Your task to perform on an android device: Search for seafood restaurants on Google Maps Image 0: 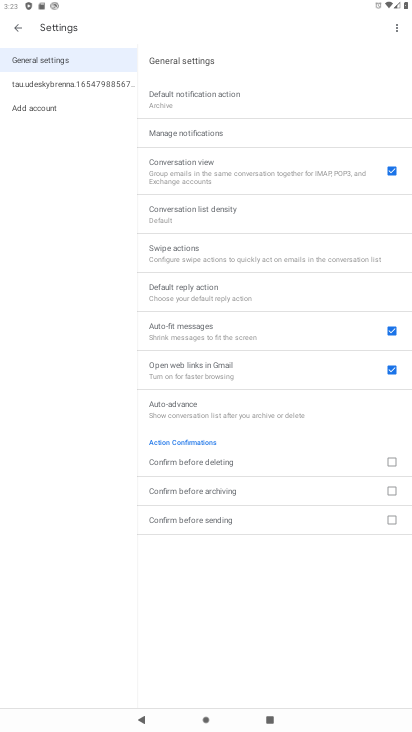
Step 0: press home button
Your task to perform on an android device: Search for seafood restaurants on Google Maps Image 1: 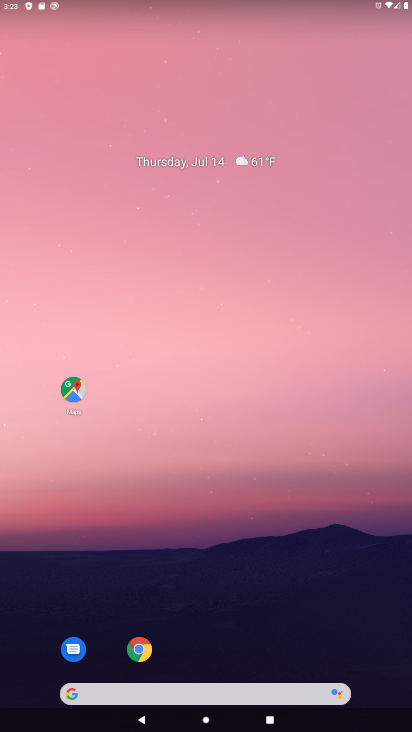
Step 1: click (73, 394)
Your task to perform on an android device: Search for seafood restaurants on Google Maps Image 2: 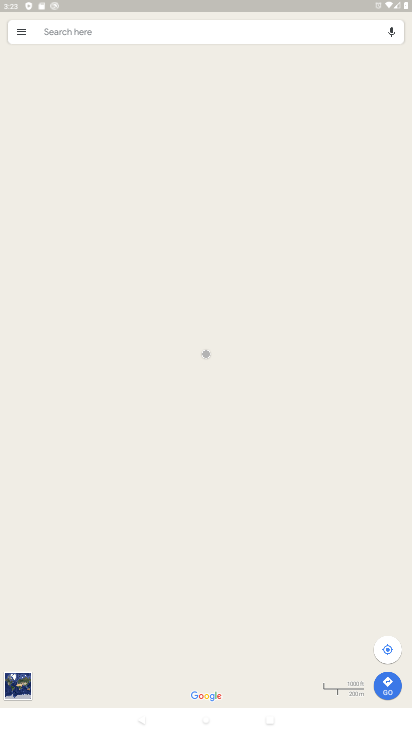
Step 2: click (211, 27)
Your task to perform on an android device: Search for seafood restaurants on Google Maps Image 3: 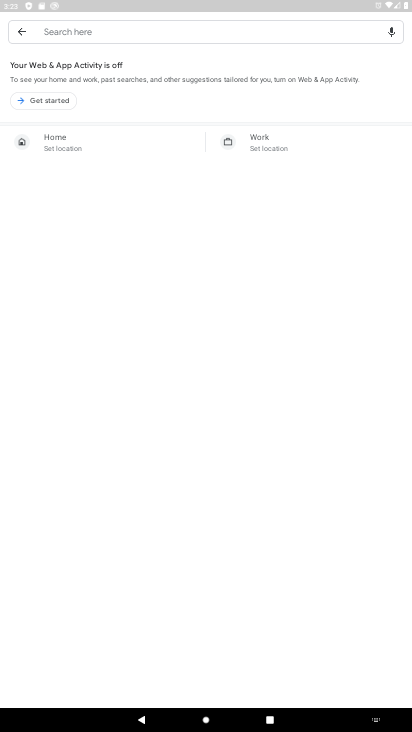
Step 3: click (27, 108)
Your task to perform on an android device: Search for seafood restaurants on Google Maps Image 4: 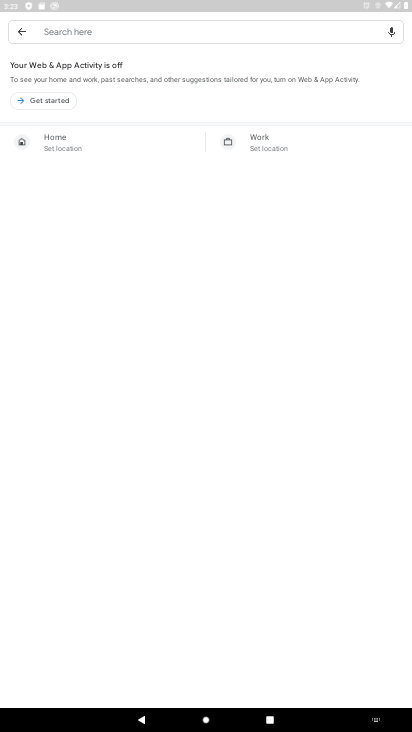
Step 4: click (31, 101)
Your task to perform on an android device: Search for seafood restaurants on Google Maps Image 5: 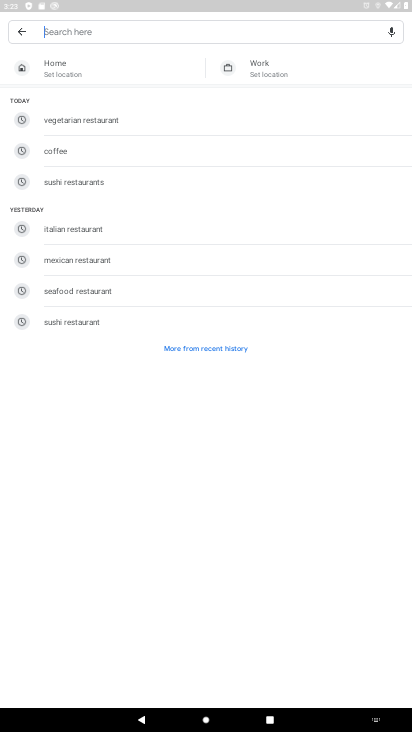
Step 5: click (104, 293)
Your task to perform on an android device: Search for seafood restaurants on Google Maps Image 6: 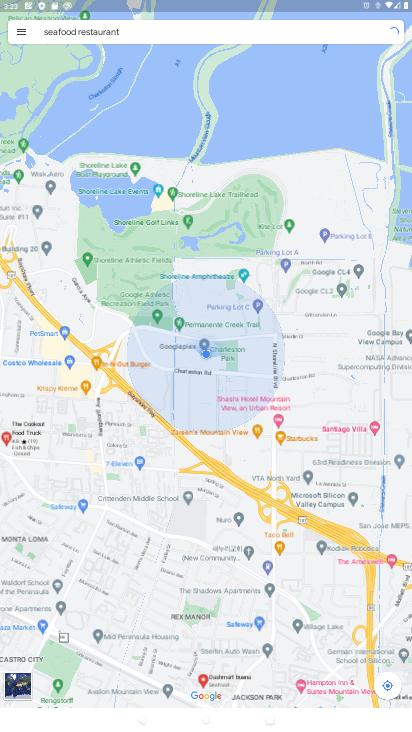
Step 6: task complete